Your task to perform on an android device: find snoozed emails in the gmail app Image 0: 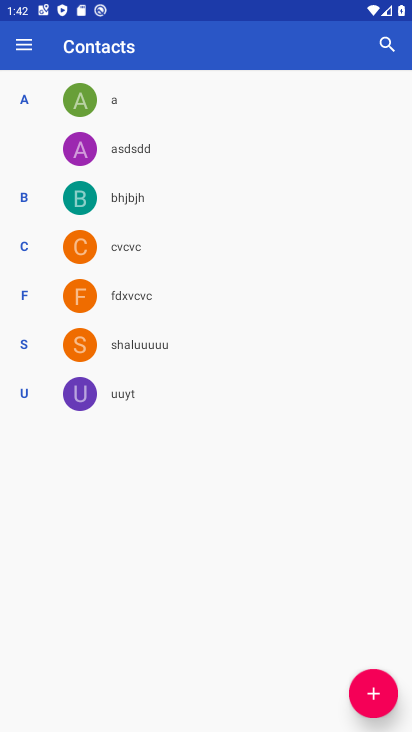
Step 0: press home button
Your task to perform on an android device: find snoozed emails in the gmail app Image 1: 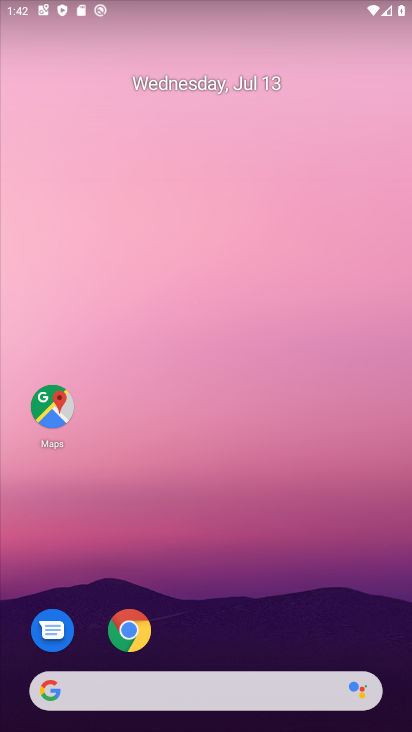
Step 1: drag from (340, 650) to (351, 160)
Your task to perform on an android device: find snoozed emails in the gmail app Image 2: 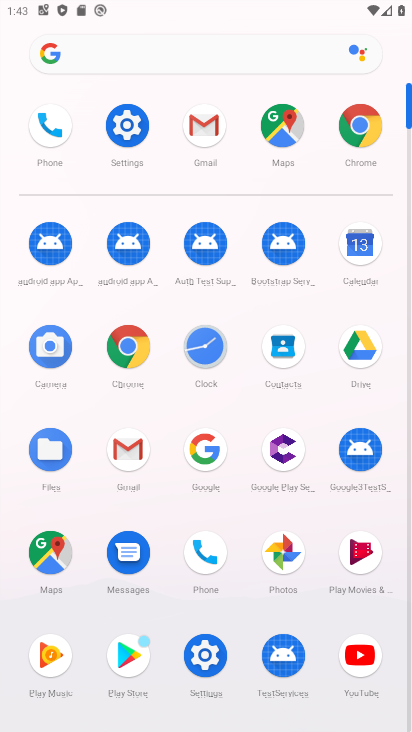
Step 2: click (136, 453)
Your task to perform on an android device: find snoozed emails in the gmail app Image 3: 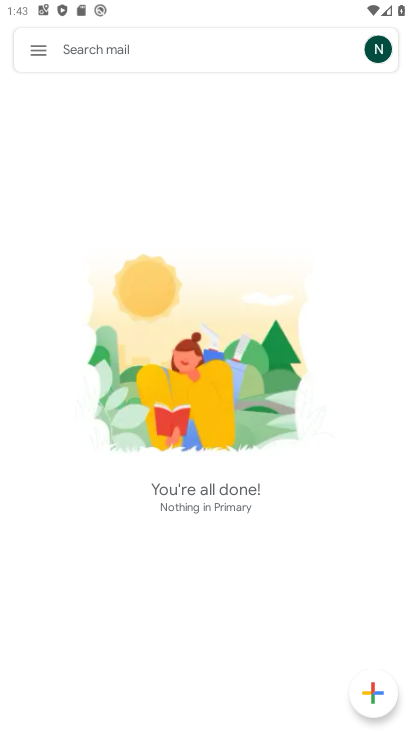
Step 3: click (40, 56)
Your task to perform on an android device: find snoozed emails in the gmail app Image 4: 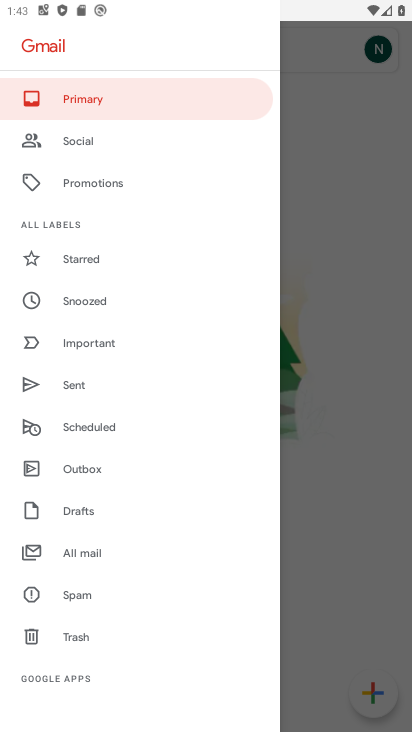
Step 4: drag from (198, 429) to (205, 352)
Your task to perform on an android device: find snoozed emails in the gmail app Image 5: 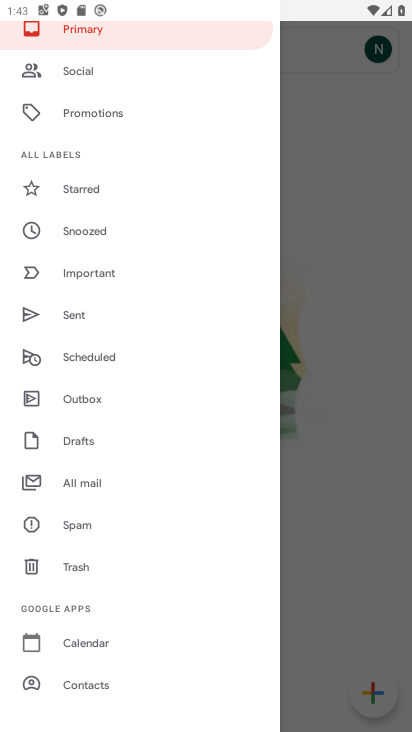
Step 5: drag from (211, 491) to (209, 371)
Your task to perform on an android device: find snoozed emails in the gmail app Image 6: 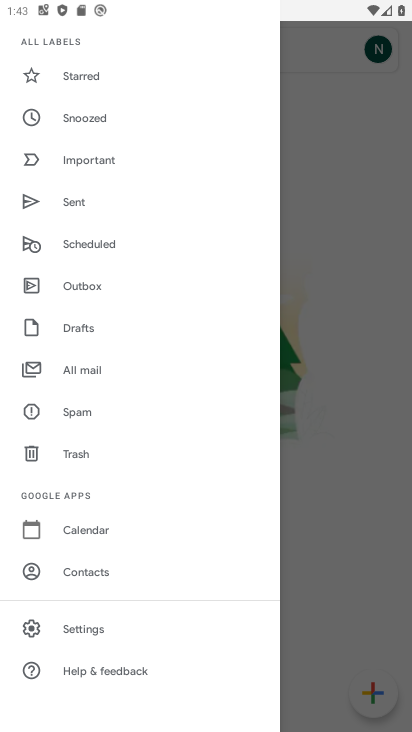
Step 6: drag from (221, 549) to (211, 393)
Your task to perform on an android device: find snoozed emails in the gmail app Image 7: 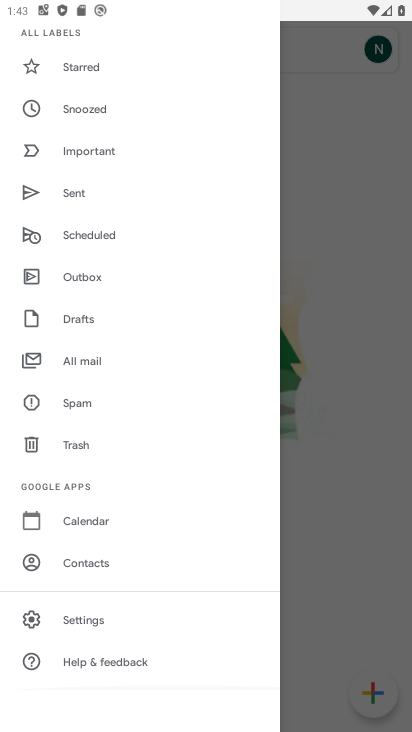
Step 7: drag from (201, 294) to (199, 396)
Your task to perform on an android device: find snoozed emails in the gmail app Image 8: 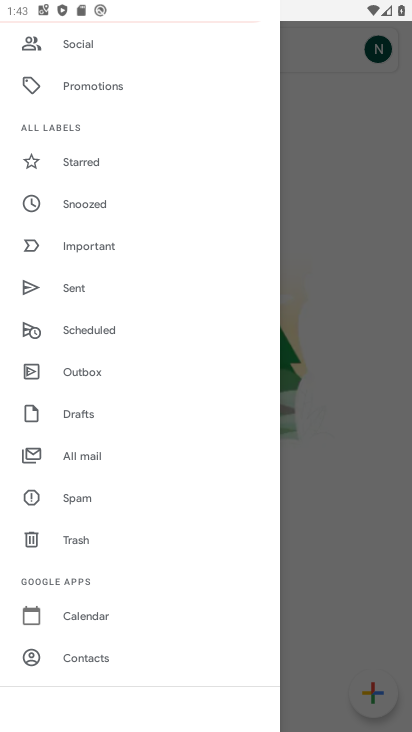
Step 8: drag from (197, 272) to (195, 389)
Your task to perform on an android device: find snoozed emails in the gmail app Image 9: 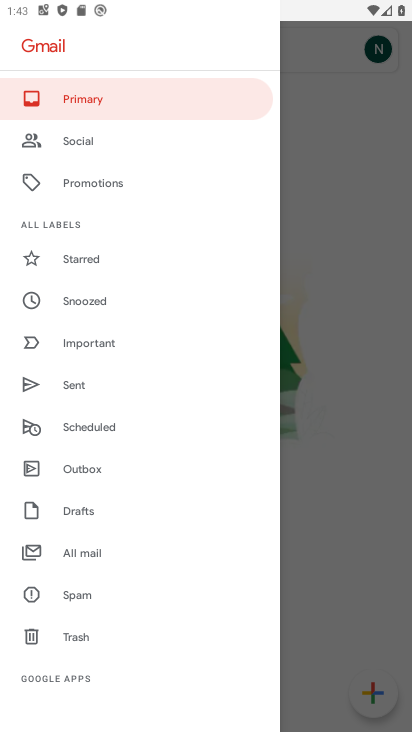
Step 9: click (129, 302)
Your task to perform on an android device: find snoozed emails in the gmail app Image 10: 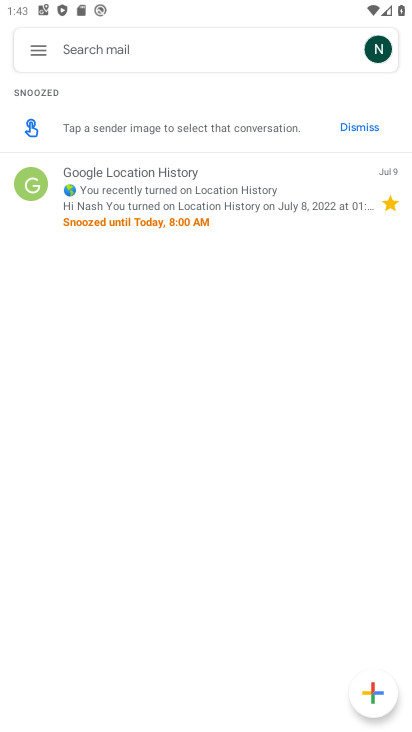
Step 10: task complete